Your task to perform on an android device: Open Google Maps Image 0: 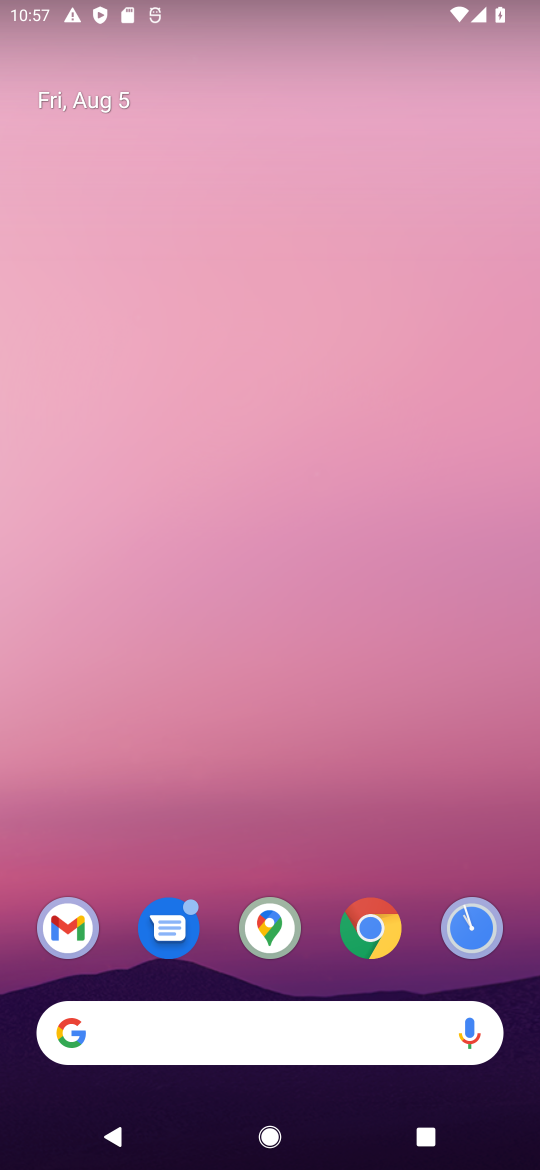
Step 0: click (264, 913)
Your task to perform on an android device: Open Google Maps Image 1: 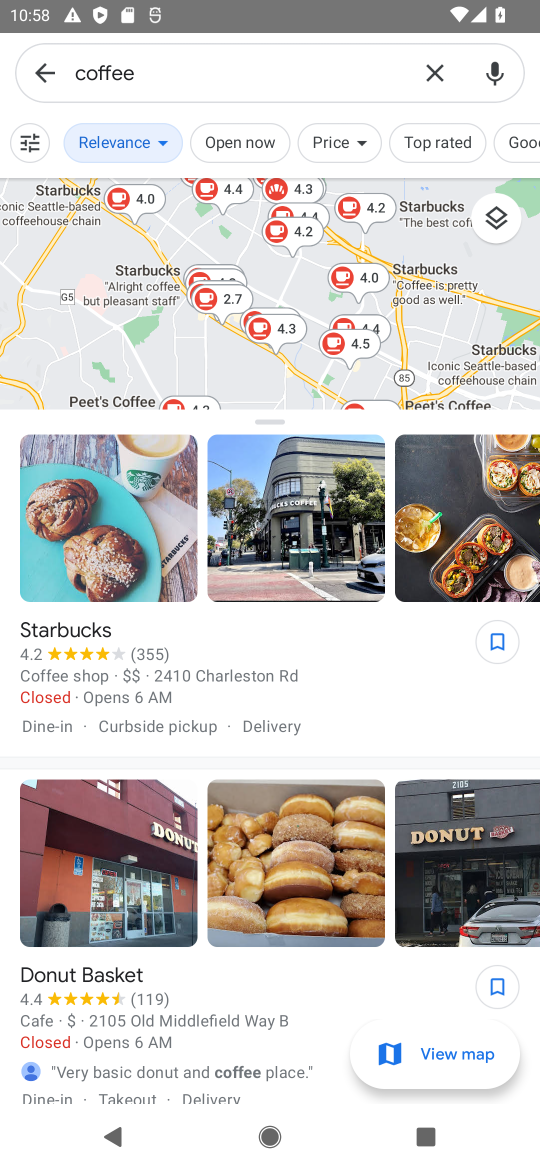
Step 1: task complete